Your task to perform on an android device: Open Google Maps Image 0: 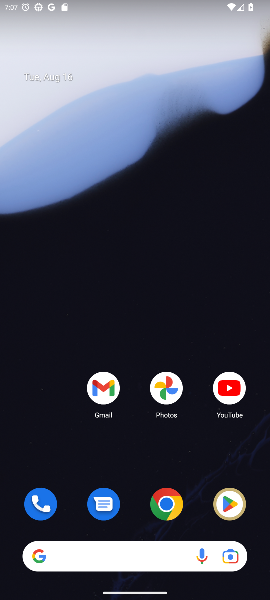
Step 0: drag from (157, 272) to (198, 230)
Your task to perform on an android device: Open Google Maps Image 1: 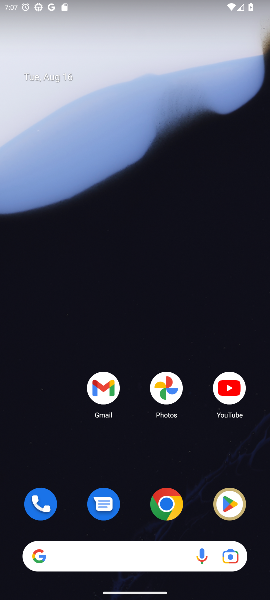
Step 1: drag from (11, 577) to (269, 55)
Your task to perform on an android device: Open Google Maps Image 2: 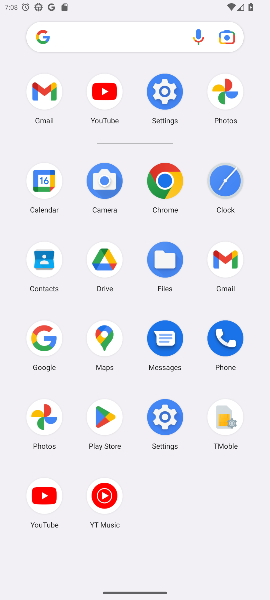
Step 2: click (104, 354)
Your task to perform on an android device: Open Google Maps Image 3: 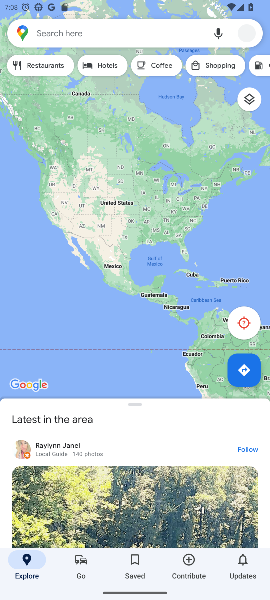
Step 3: task complete